Your task to perform on an android device: change notification settings in the gmail app Image 0: 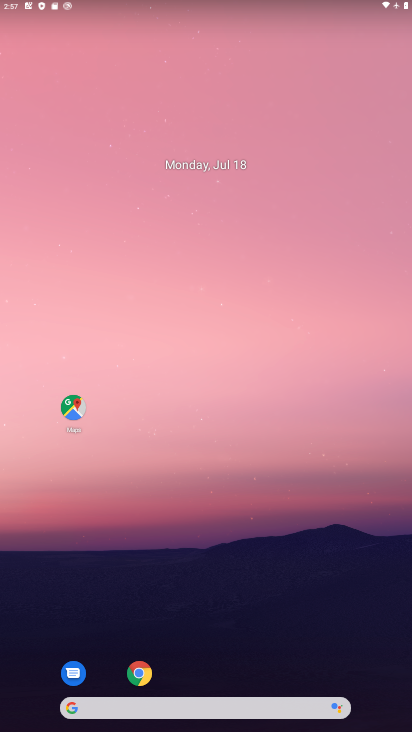
Step 0: drag from (175, 652) to (186, 130)
Your task to perform on an android device: change notification settings in the gmail app Image 1: 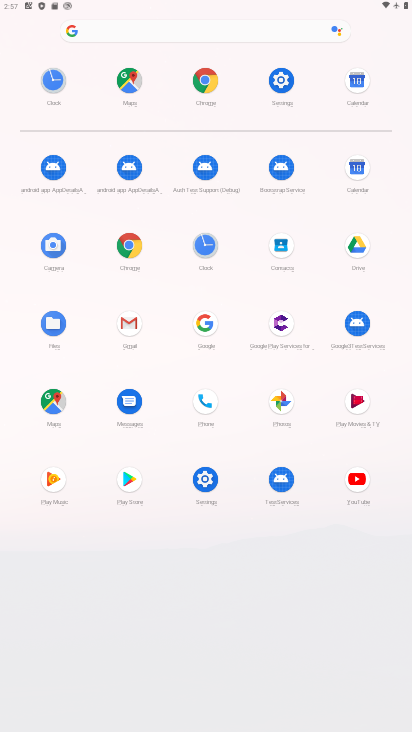
Step 1: click (137, 321)
Your task to perform on an android device: change notification settings in the gmail app Image 2: 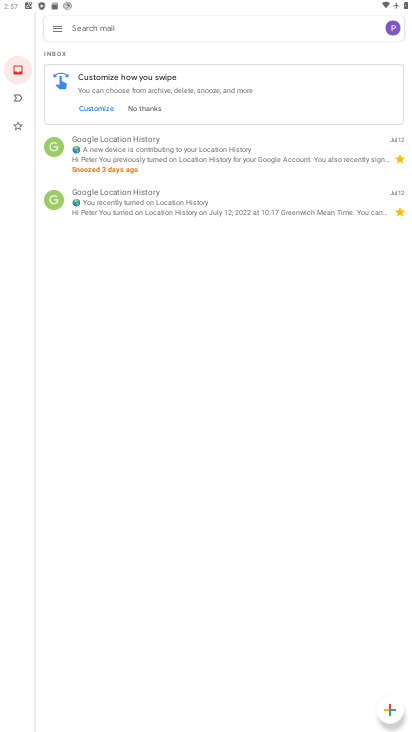
Step 2: click (52, 28)
Your task to perform on an android device: change notification settings in the gmail app Image 3: 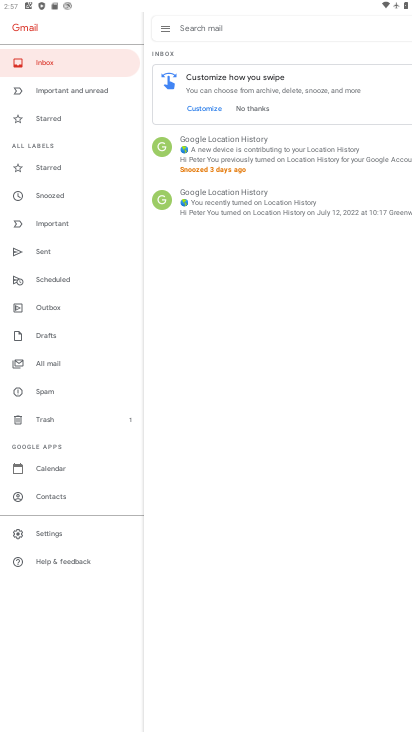
Step 3: click (53, 531)
Your task to perform on an android device: change notification settings in the gmail app Image 4: 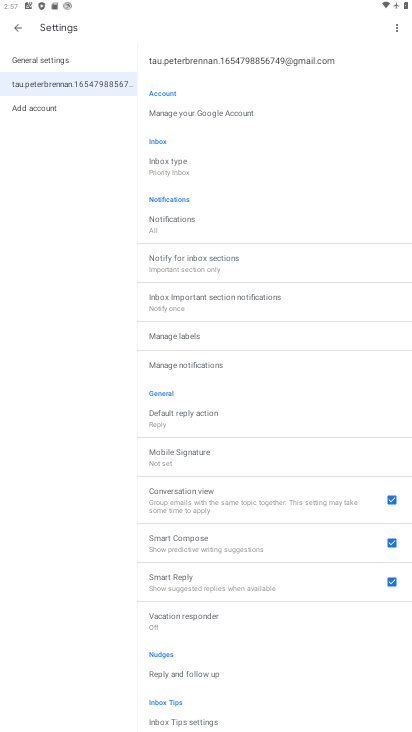
Step 4: click (209, 215)
Your task to perform on an android device: change notification settings in the gmail app Image 5: 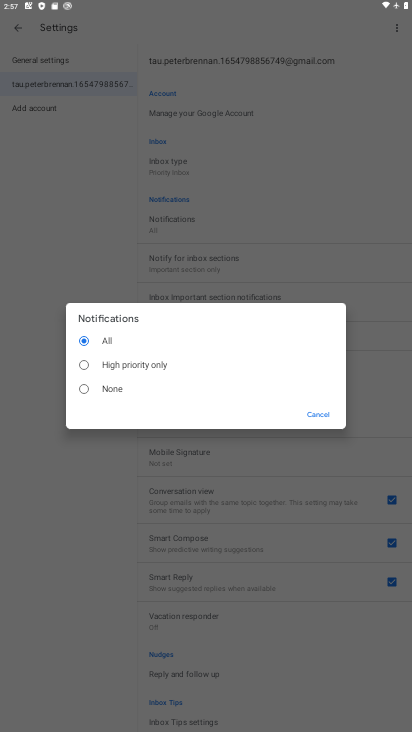
Step 5: click (98, 398)
Your task to perform on an android device: change notification settings in the gmail app Image 6: 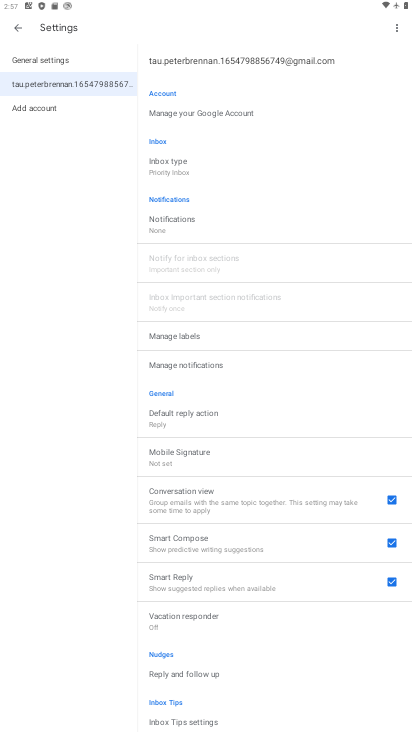
Step 6: task complete